Your task to perform on an android device: Open sound settings Image 0: 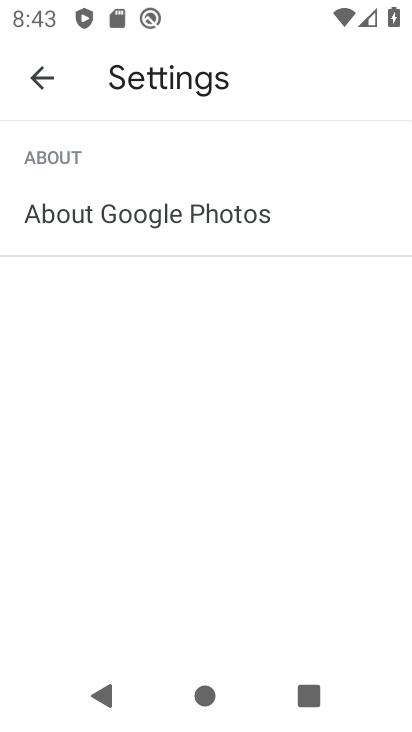
Step 0: press home button
Your task to perform on an android device: Open sound settings Image 1: 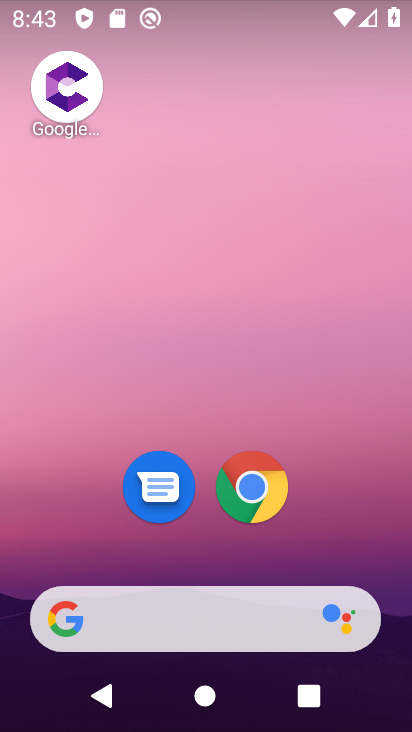
Step 1: drag from (403, 596) to (333, 126)
Your task to perform on an android device: Open sound settings Image 2: 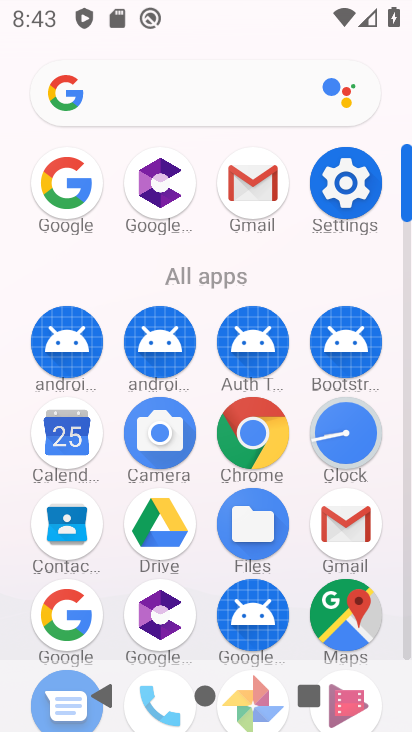
Step 2: click (359, 190)
Your task to perform on an android device: Open sound settings Image 3: 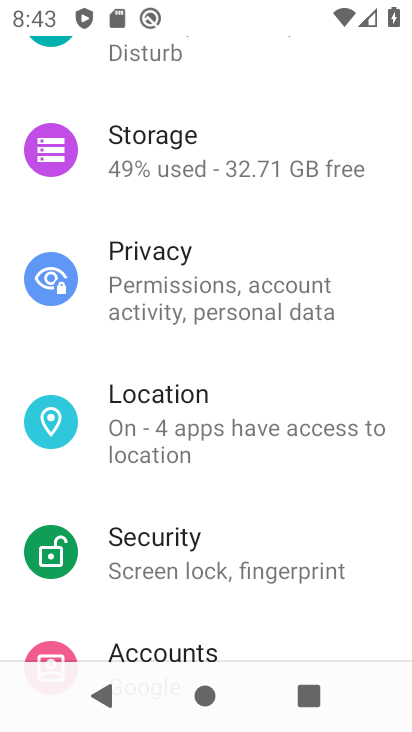
Step 3: drag from (256, 215) to (266, 526)
Your task to perform on an android device: Open sound settings Image 4: 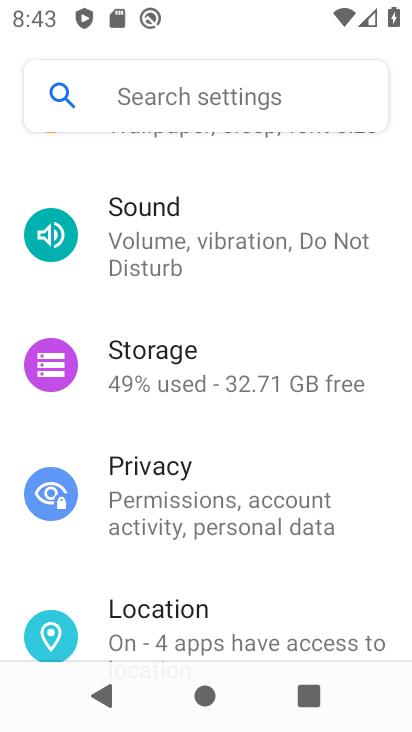
Step 4: click (251, 278)
Your task to perform on an android device: Open sound settings Image 5: 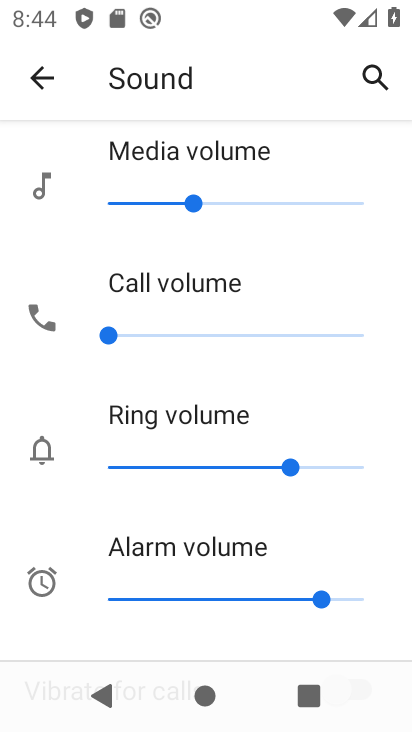
Step 5: task complete